Your task to perform on an android device: Is it going to rain tomorrow? Image 0: 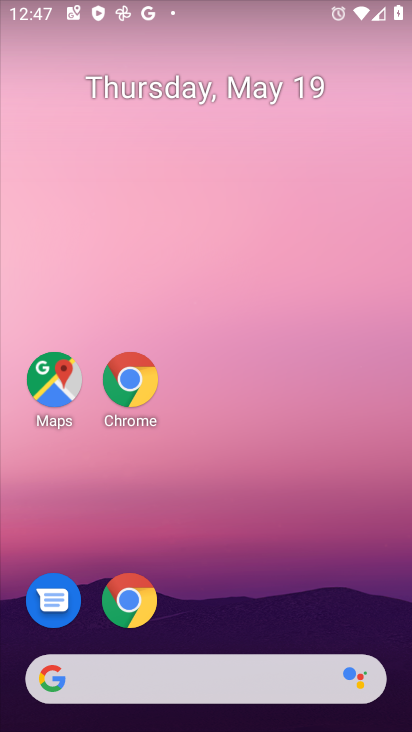
Step 0: drag from (353, 605) to (168, 173)
Your task to perform on an android device: Is it going to rain tomorrow? Image 1: 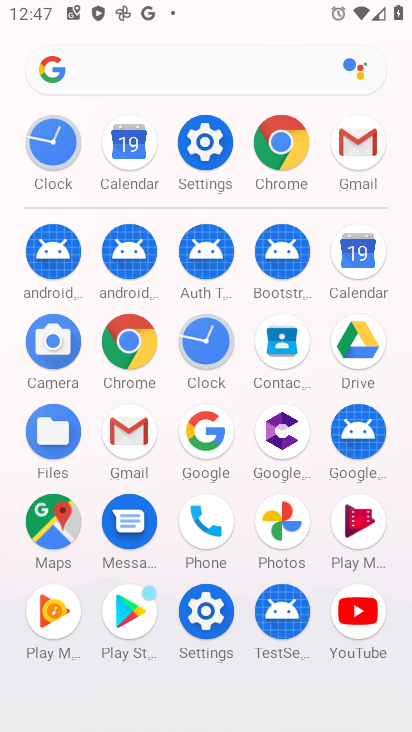
Step 1: press back button
Your task to perform on an android device: Is it going to rain tomorrow? Image 2: 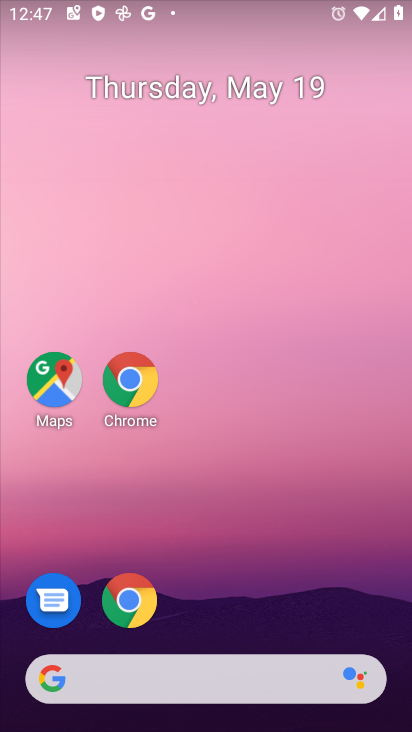
Step 2: drag from (133, 202) to (394, 453)
Your task to perform on an android device: Is it going to rain tomorrow? Image 3: 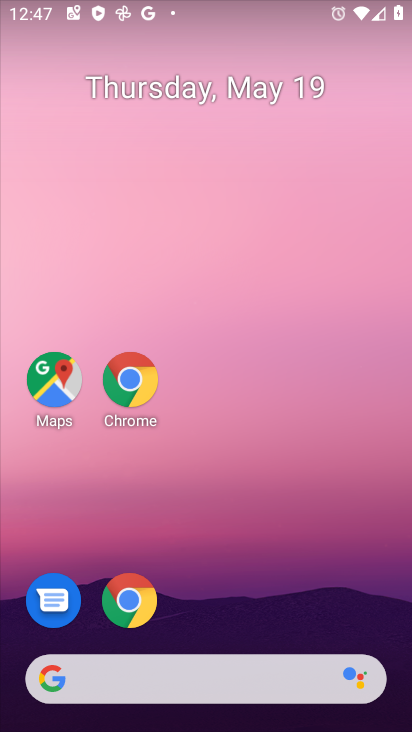
Step 3: drag from (2, 185) to (366, 405)
Your task to perform on an android device: Is it going to rain tomorrow? Image 4: 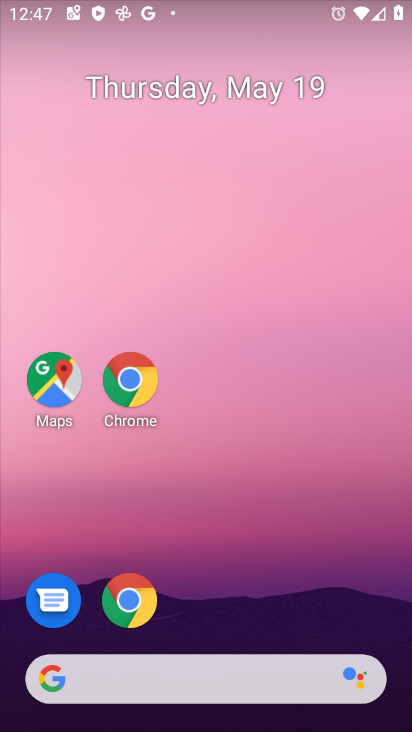
Step 4: click (402, 413)
Your task to perform on an android device: Is it going to rain tomorrow? Image 5: 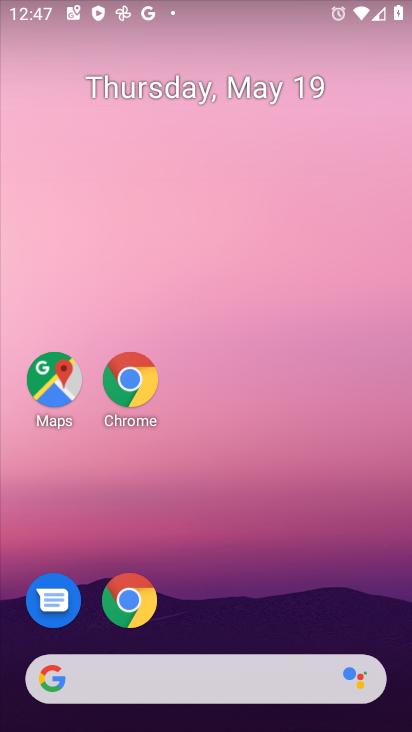
Step 5: drag from (374, 442) to (411, 439)
Your task to perform on an android device: Is it going to rain tomorrow? Image 6: 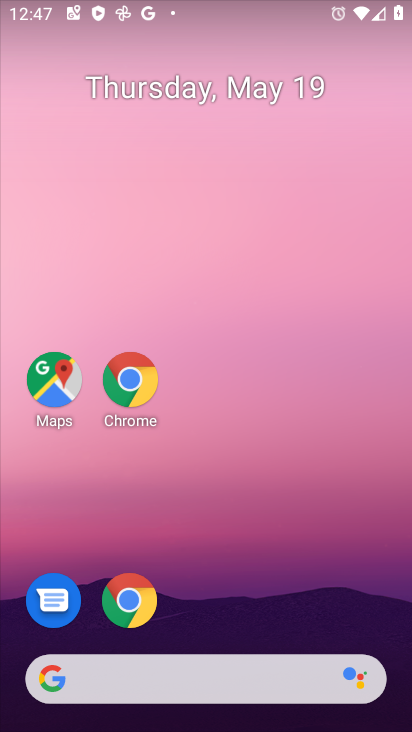
Step 6: drag from (2, 165) to (391, 465)
Your task to perform on an android device: Is it going to rain tomorrow? Image 7: 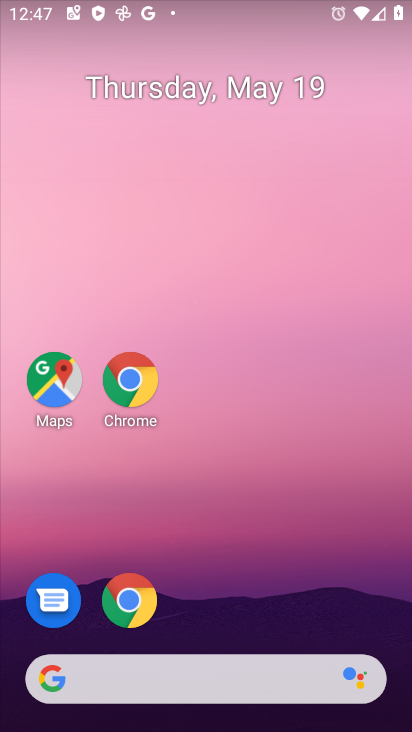
Step 7: drag from (165, 234) to (379, 379)
Your task to perform on an android device: Is it going to rain tomorrow? Image 8: 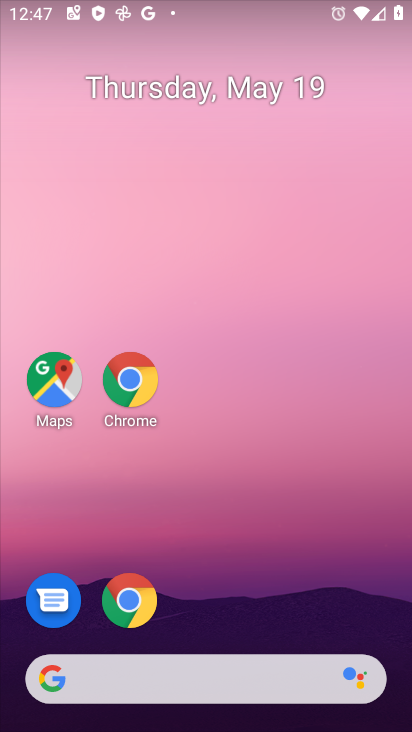
Step 8: drag from (2, 174) to (367, 493)
Your task to perform on an android device: Is it going to rain tomorrow? Image 9: 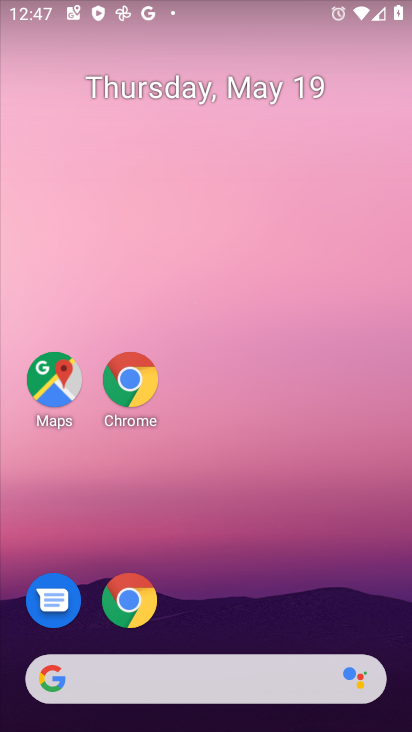
Step 9: drag from (392, 538) to (370, 612)
Your task to perform on an android device: Is it going to rain tomorrow? Image 10: 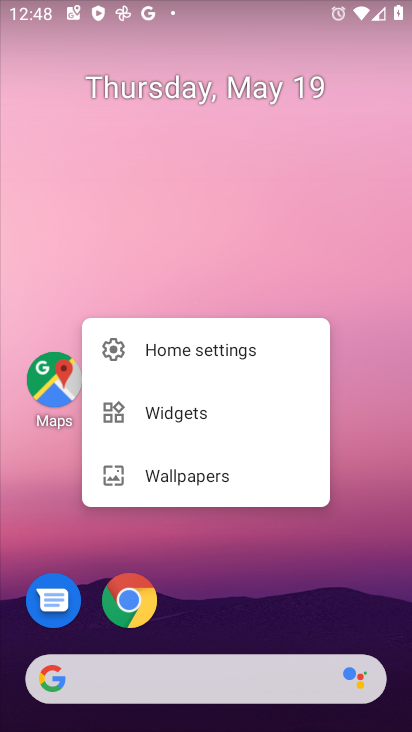
Step 10: click (142, 302)
Your task to perform on an android device: Is it going to rain tomorrow? Image 11: 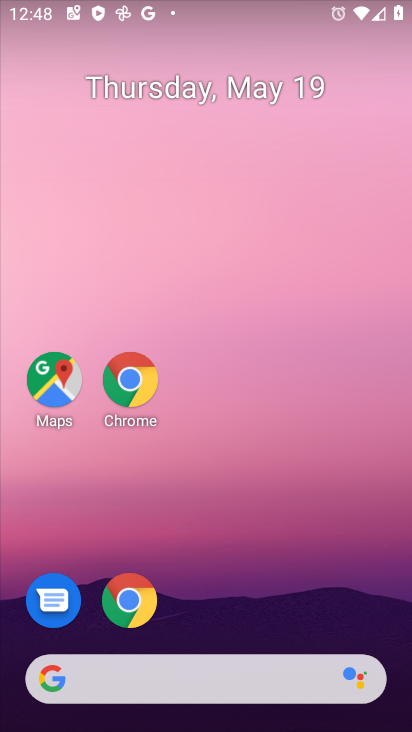
Step 11: click (170, 228)
Your task to perform on an android device: Is it going to rain tomorrow? Image 12: 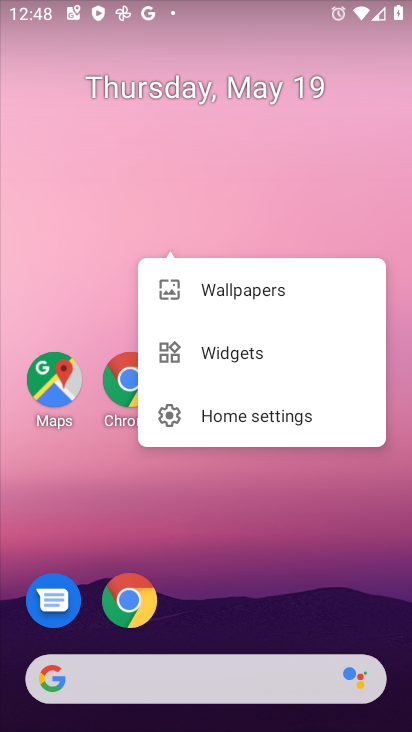
Step 12: click (409, 401)
Your task to perform on an android device: Is it going to rain tomorrow? Image 13: 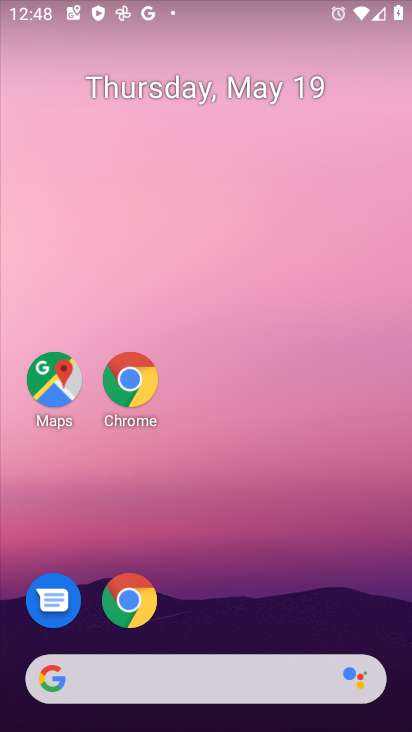
Step 13: click (153, 171)
Your task to perform on an android device: Is it going to rain tomorrow? Image 14: 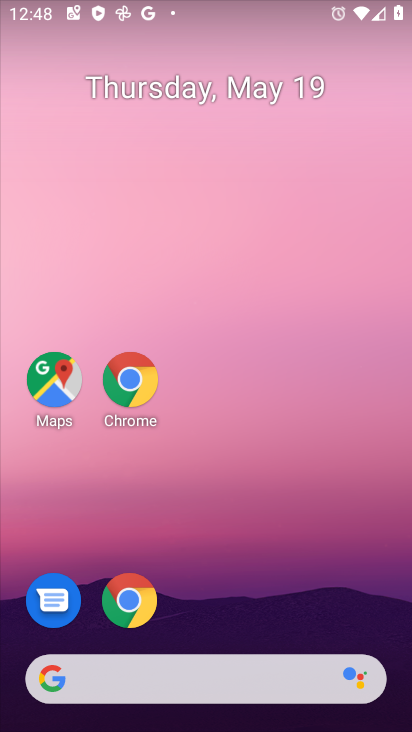
Step 14: click (400, 498)
Your task to perform on an android device: Is it going to rain tomorrow? Image 15: 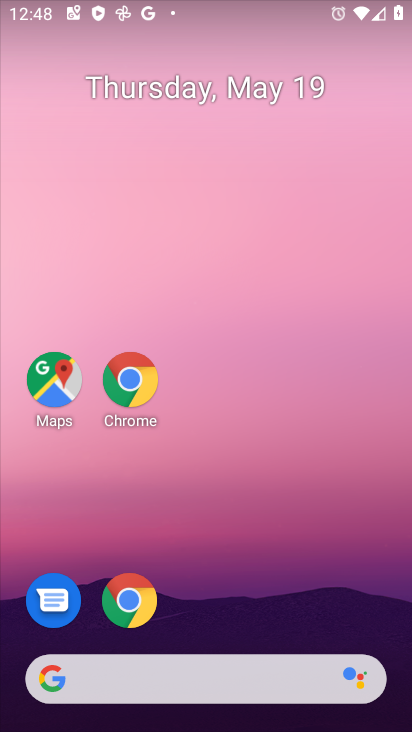
Step 15: click (405, 376)
Your task to perform on an android device: Is it going to rain tomorrow? Image 16: 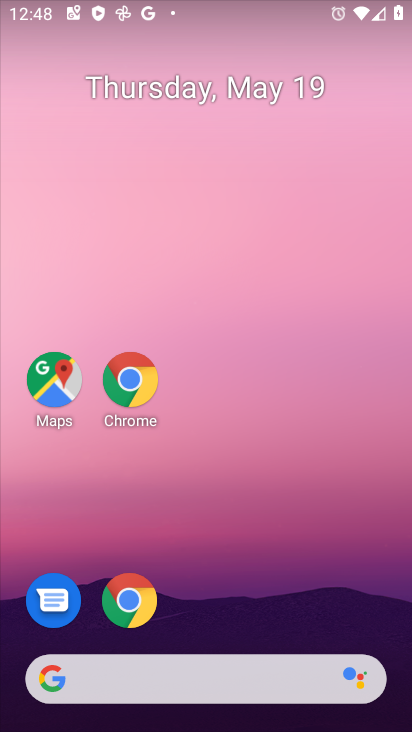
Step 16: task complete